Your task to perform on an android device: turn off wifi Image 0: 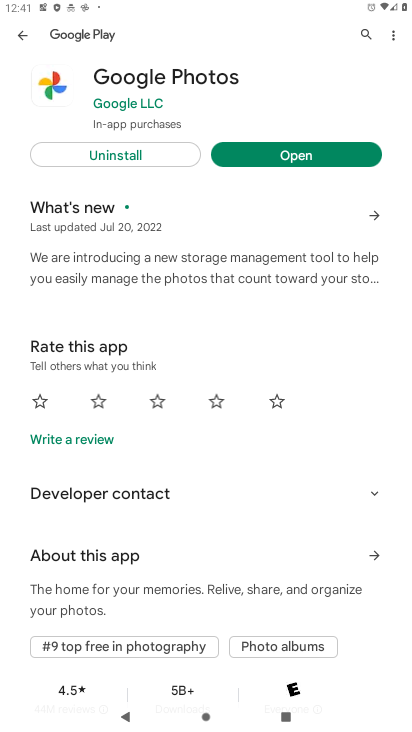
Step 0: press home button
Your task to perform on an android device: turn off wifi Image 1: 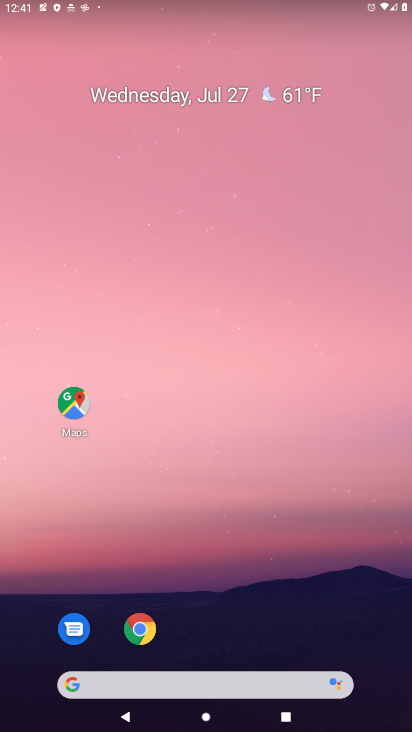
Step 1: drag from (280, 669) to (267, 226)
Your task to perform on an android device: turn off wifi Image 2: 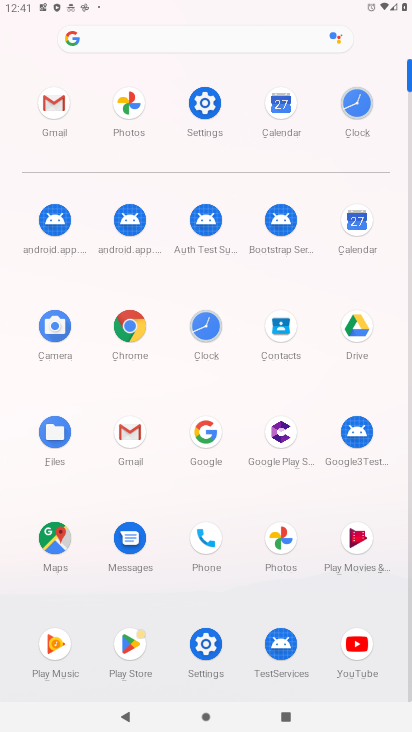
Step 2: click (190, 126)
Your task to perform on an android device: turn off wifi Image 3: 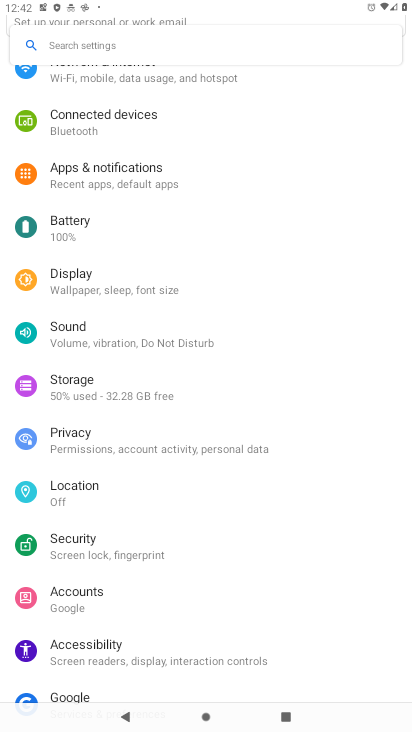
Step 3: click (205, 89)
Your task to perform on an android device: turn off wifi Image 4: 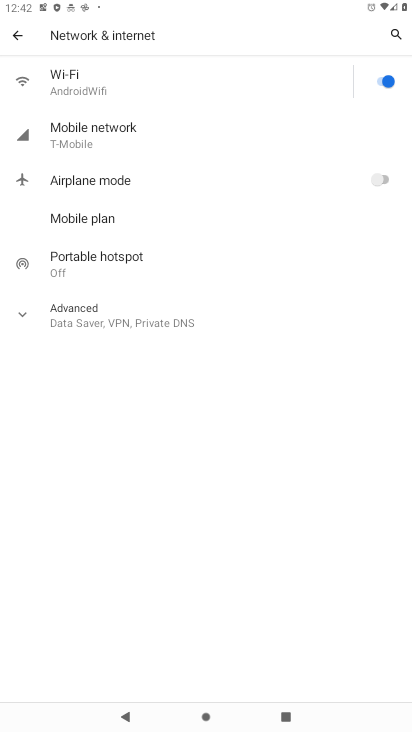
Step 4: click (192, 89)
Your task to perform on an android device: turn off wifi Image 5: 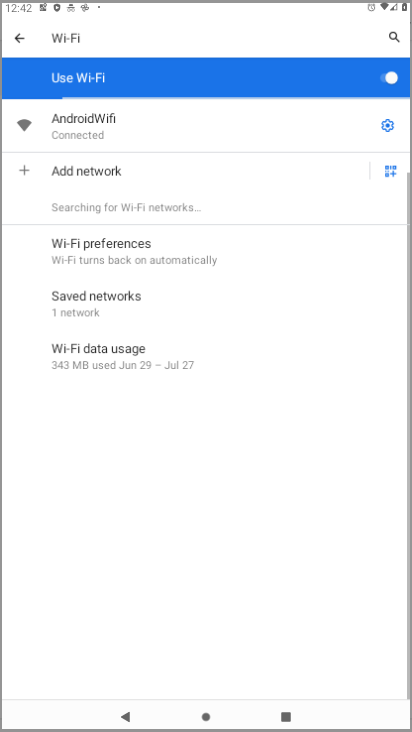
Step 5: task complete